Your task to perform on an android device: Do I have any events this weekend? Image 0: 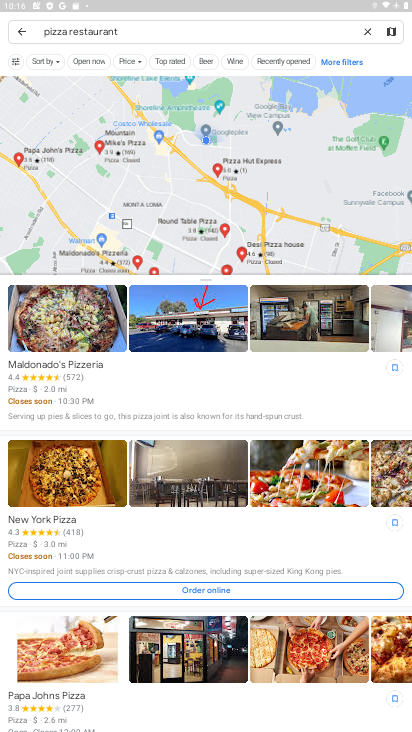
Step 0: press home button
Your task to perform on an android device: Do I have any events this weekend? Image 1: 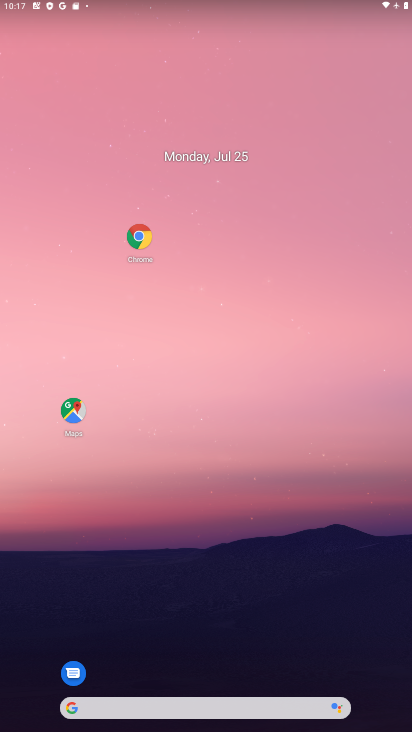
Step 1: drag from (278, 669) to (306, 15)
Your task to perform on an android device: Do I have any events this weekend? Image 2: 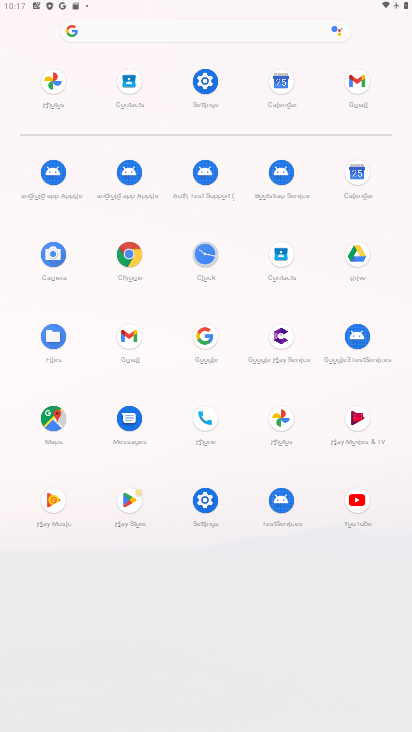
Step 2: click (125, 100)
Your task to perform on an android device: Do I have any events this weekend? Image 3: 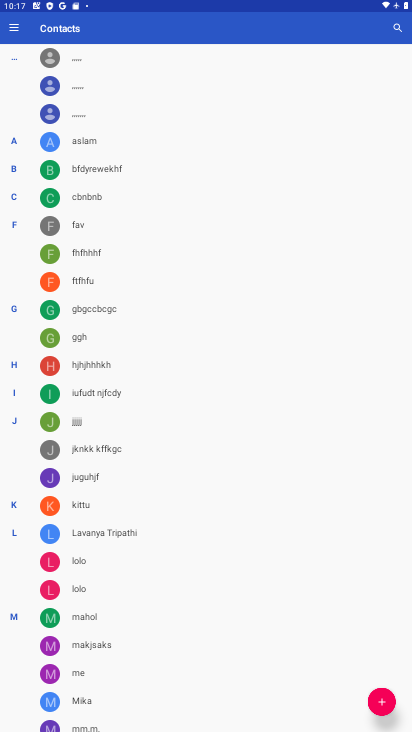
Step 3: click (382, 695)
Your task to perform on an android device: Do I have any events this weekend? Image 4: 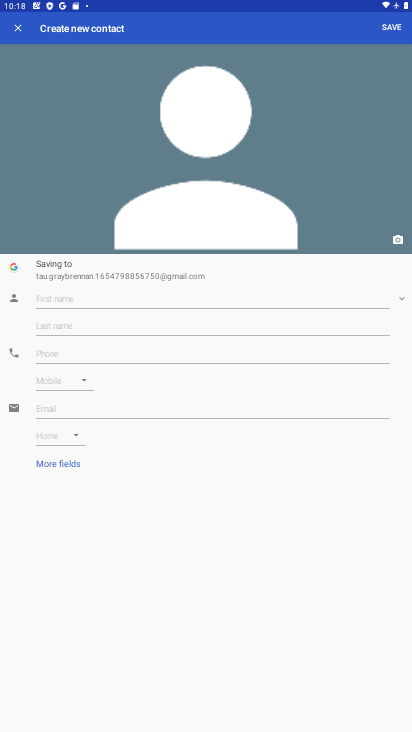
Step 4: task complete